Your task to perform on an android device: Open Chrome and go to settings Image 0: 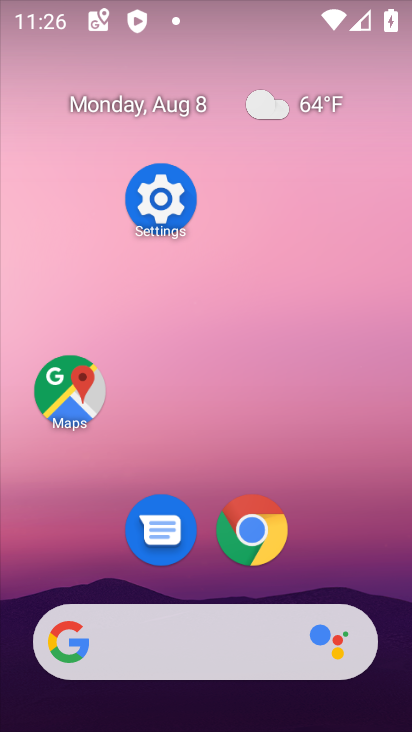
Step 0: drag from (285, 632) to (265, 296)
Your task to perform on an android device: Open Chrome and go to settings Image 1: 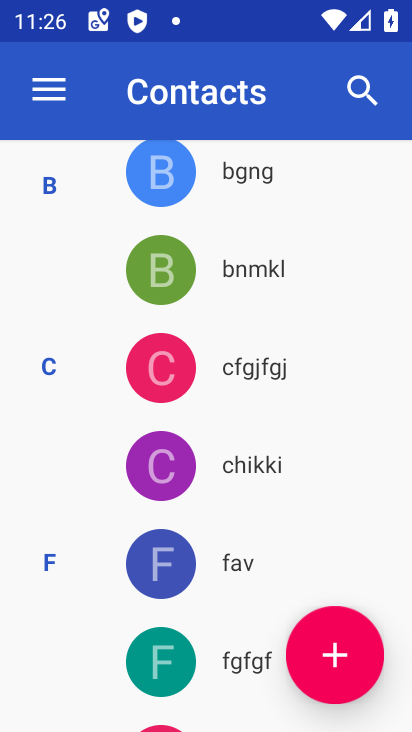
Step 1: press back button
Your task to perform on an android device: Open Chrome and go to settings Image 2: 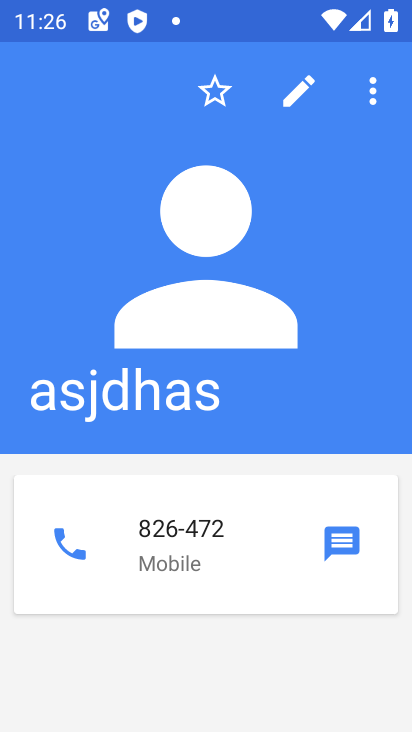
Step 2: press home button
Your task to perform on an android device: Open Chrome and go to settings Image 3: 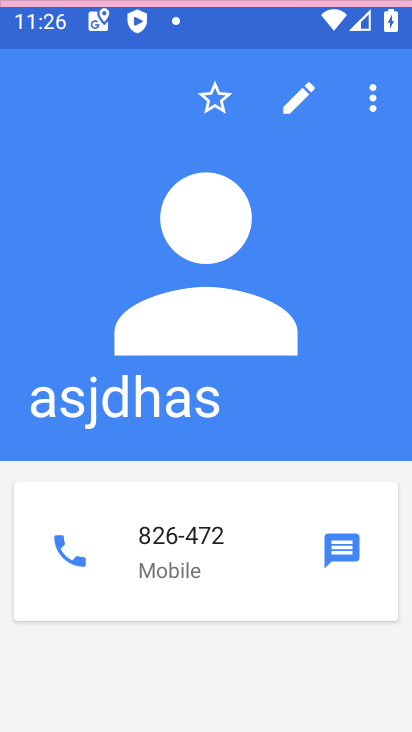
Step 3: press back button
Your task to perform on an android device: Open Chrome and go to settings Image 4: 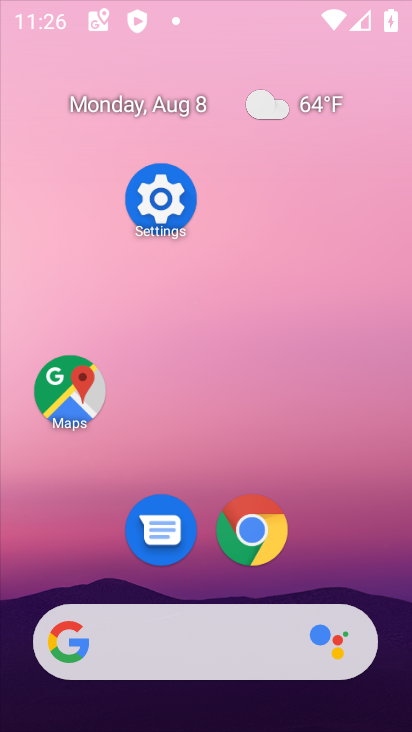
Step 4: press back button
Your task to perform on an android device: Open Chrome and go to settings Image 5: 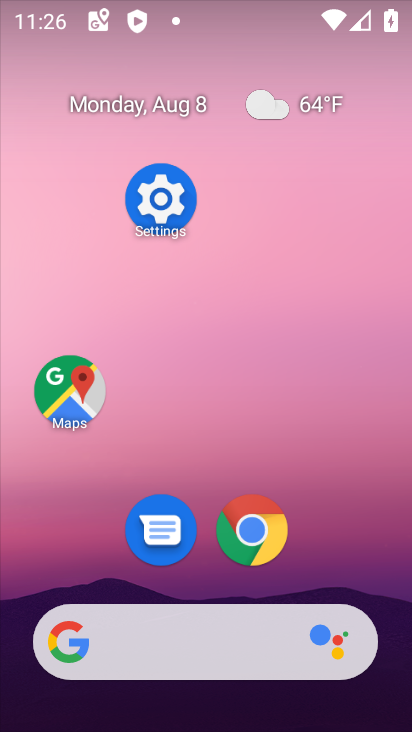
Step 5: press back button
Your task to perform on an android device: Open Chrome and go to settings Image 6: 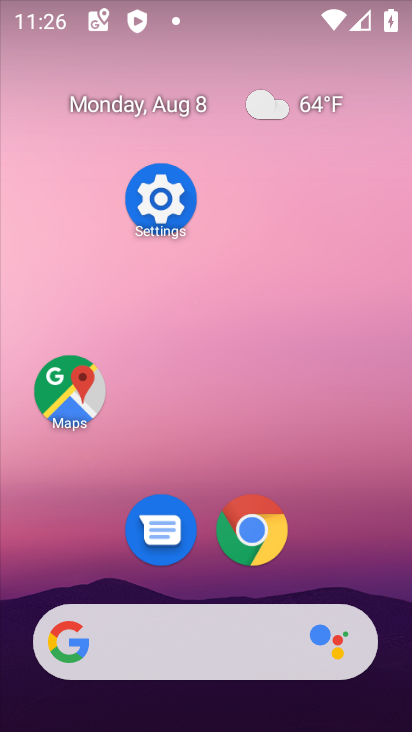
Step 6: drag from (211, 633) to (167, 222)
Your task to perform on an android device: Open Chrome and go to settings Image 7: 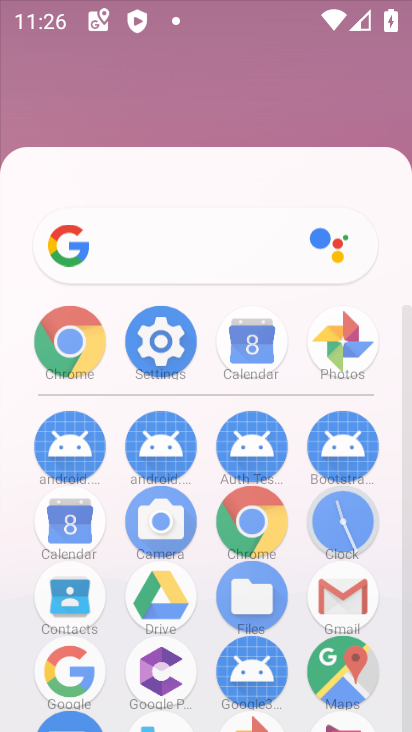
Step 7: drag from (183, 590) to (123, 321)
Your task to perform on an android device: Open Chrome and go to settings Image 8: 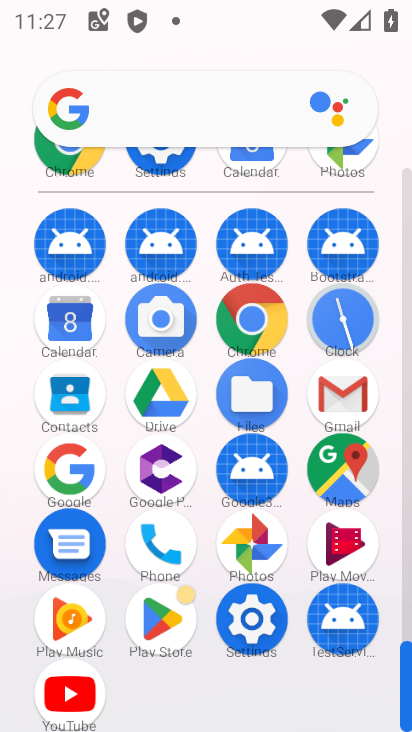
Step 8: click (264, 614)
Your task to perform on an android device: Open Chrome and go to settings Image 9: 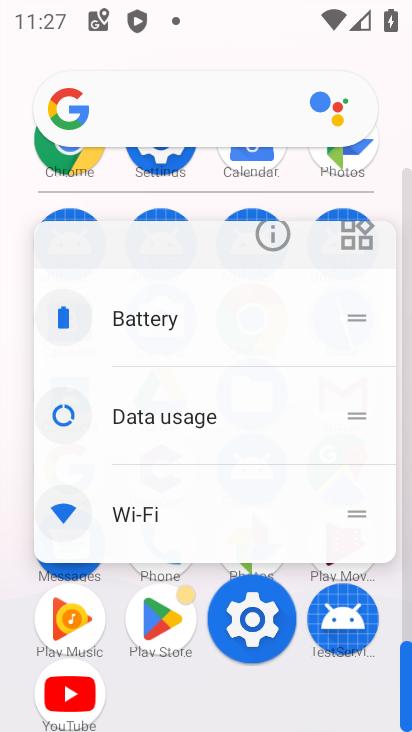
Step 9: click (267, 617)
Your task to perform on an android device: Open Chrome and go to settings Image 10: 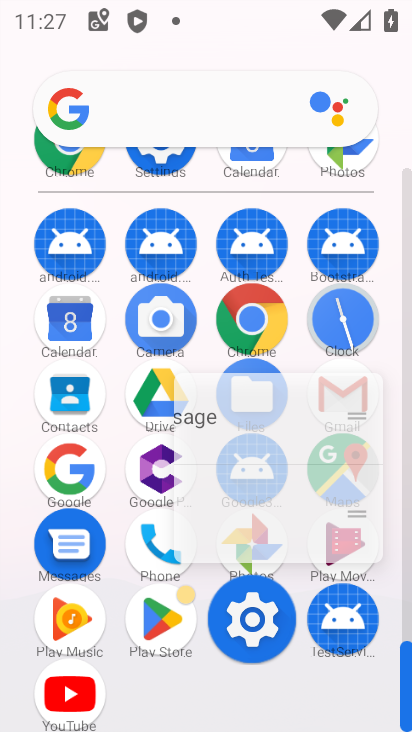
Step 10: click (266, 619)
Your task to perform on an android device: Open Chrome and go to settings Image 11: 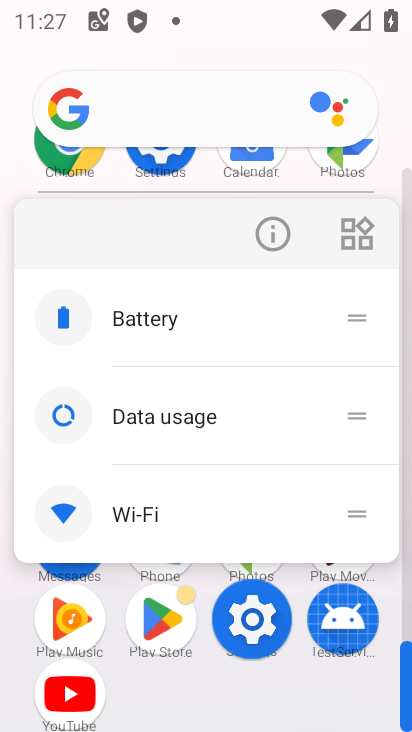
Step 11: click (264, 615)
Your task to perform on an android device: Open Chrome and go to settings Image 12: 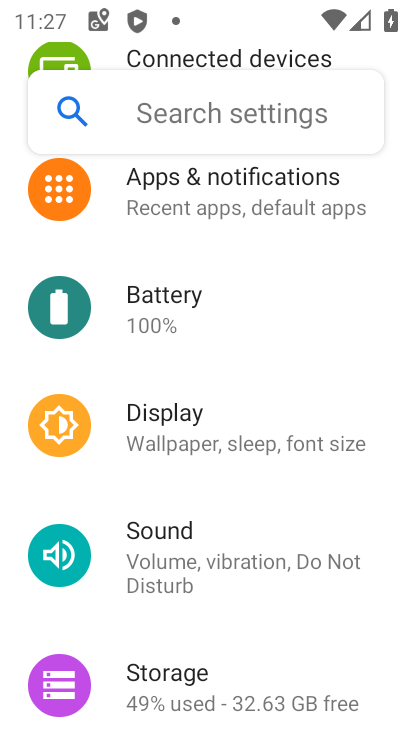
Step 12: press back button
Your task to perform on an android device: Open Chrome and go to settings Image 13: 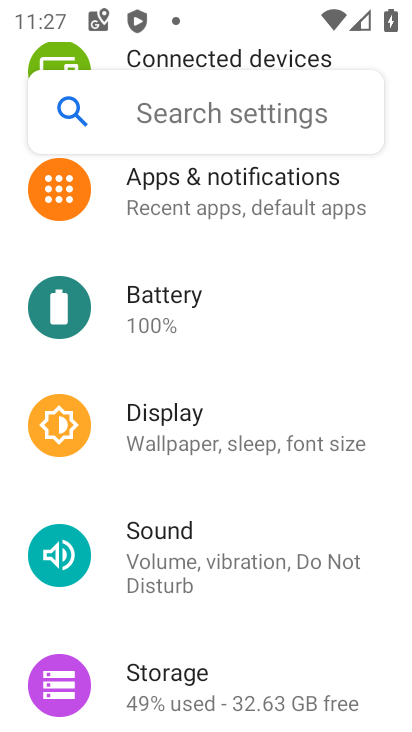
Step 13: press back button
Your task to perform on an android device: Open Chrome and go to settings Image 14: 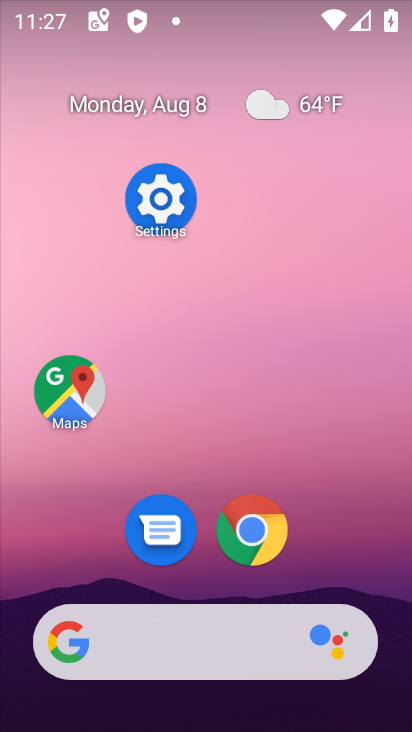
Step 14: drag from (267, 685) to (215, 0)
Your task to perform on an android device: Open Chrome and go to settings Image 15: 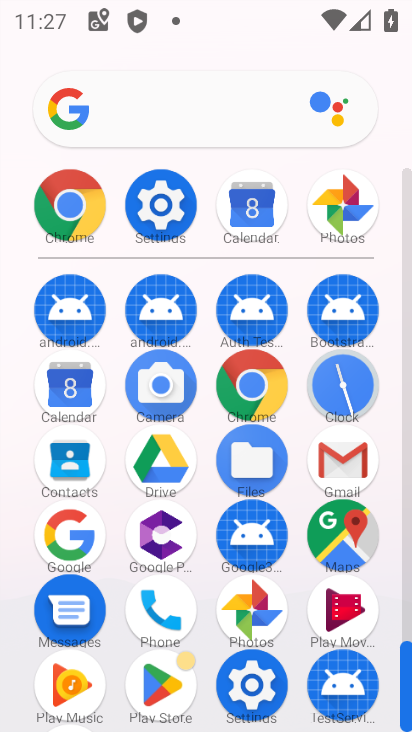
Step 15: drag from (178, 124) to (168, 87)
Your task to perform on an android device: Open Chrome and go to settings Image 16: 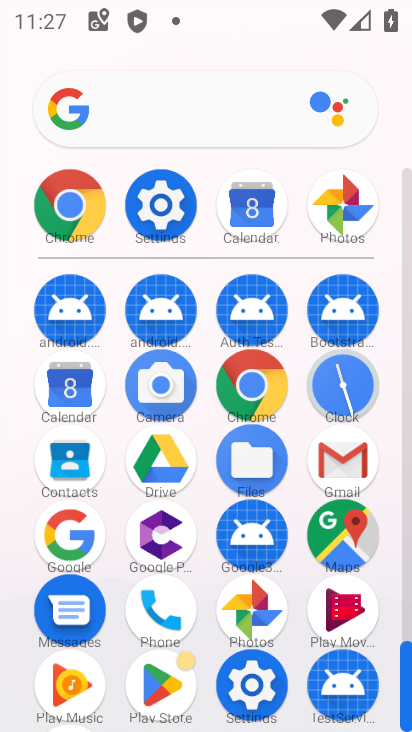
Step 16: click (193, 602)
Your task to perform on an android device: Open Chrome and go to settings Image 17: 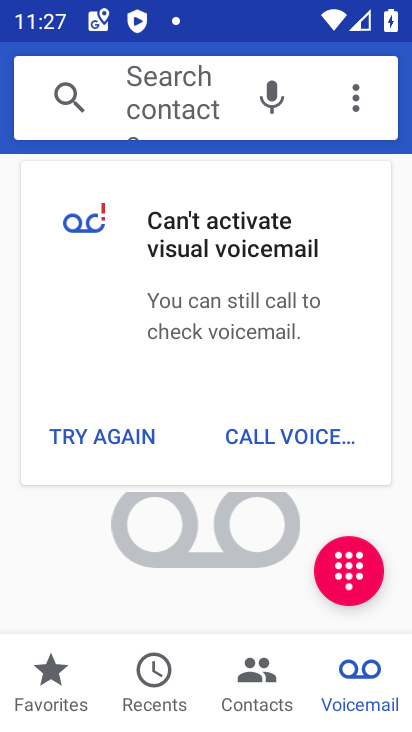
Step 17: press back button
Your task to perform on an android device: Open Chrome and go to settings Image 18: 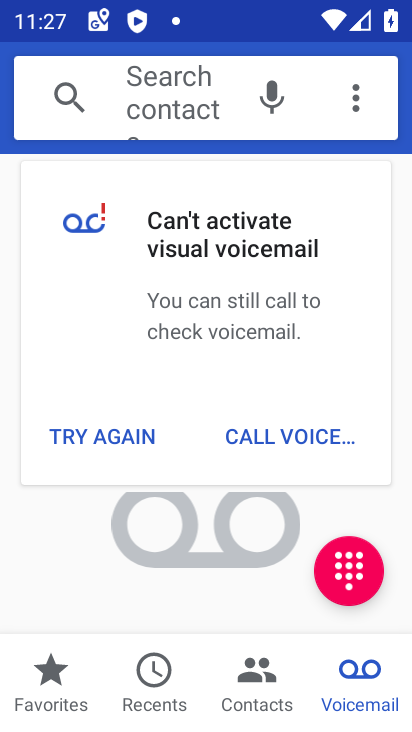
Step 18: press back button
Your task to perform on an android device: Open Chrome and go to settings Image 19: 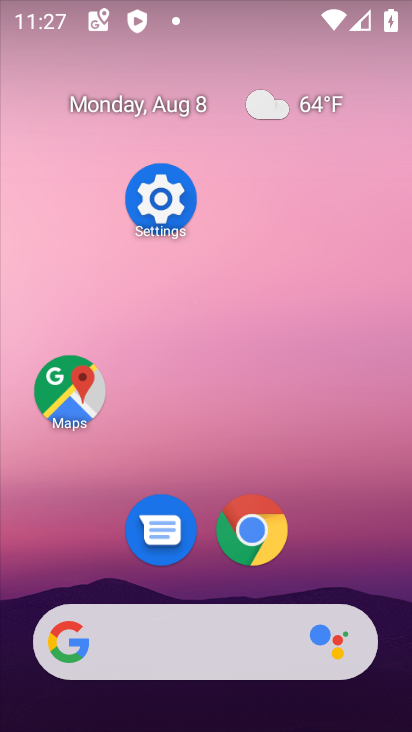
Step 19: click (248, 532)
Your task to perform on an android device: Open Chrome and go to settings Image 20: 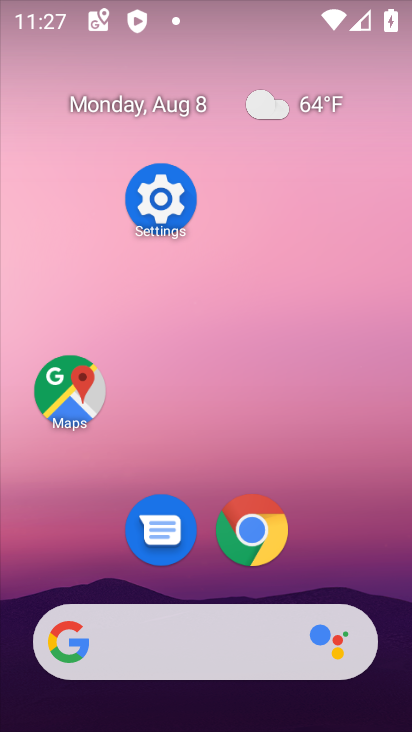
Step 20: click (248, 532)
Your task to perform on an android device: Open Chrome and go to settings Image 21: 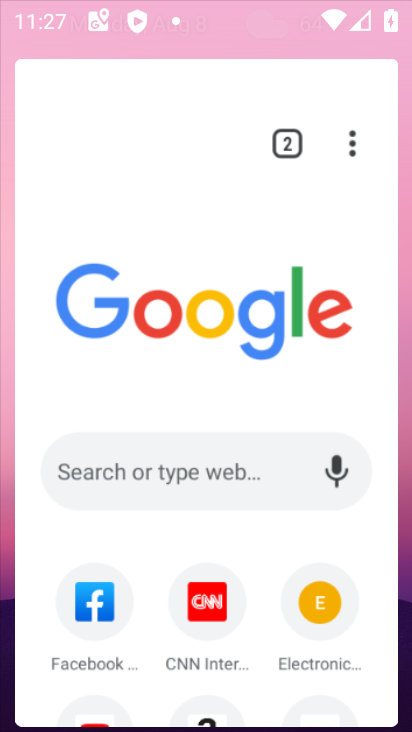
Step 21: click (248, 532)
Your task to perform on an android device: Open Chrome and go to settings Image 22: 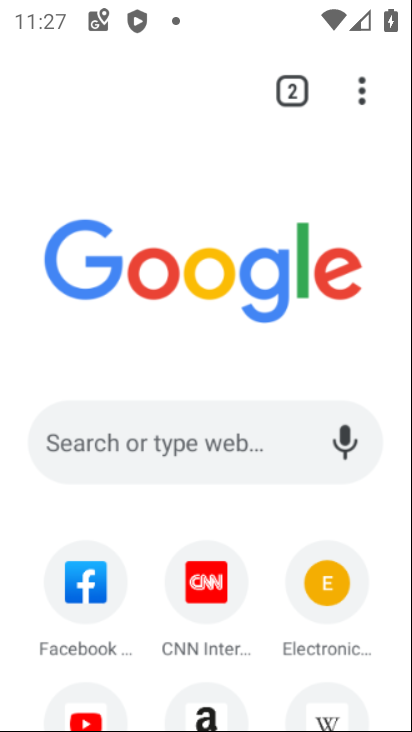
Step 22: click (249, 533)
Your task to perform on an android device: Open Chrome and go to settings Image 23: 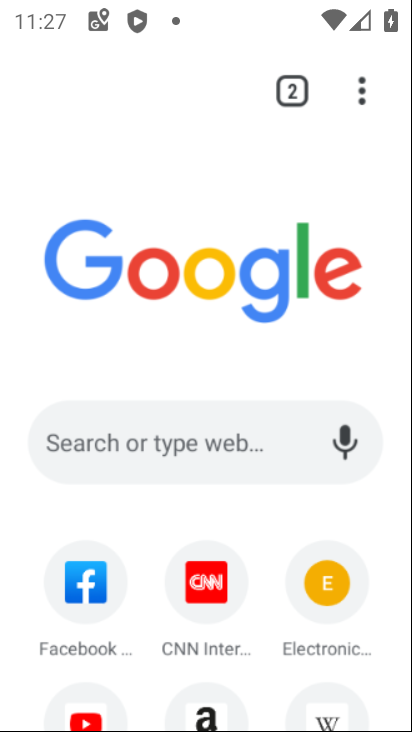
Step 23: click (249, 533)
Your task to perform on an android device: Open Chrome and go to settings Image 24: 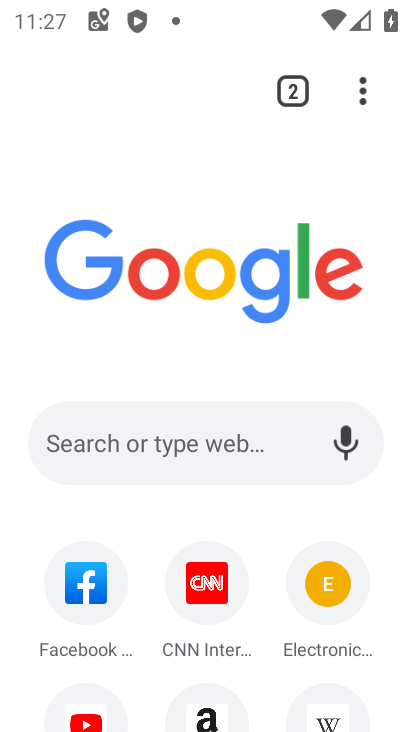
Step 24: drag from (361, 92) to (75, 551)
Your task to perform on an android device: Open Chrome and go to settings Image 25: 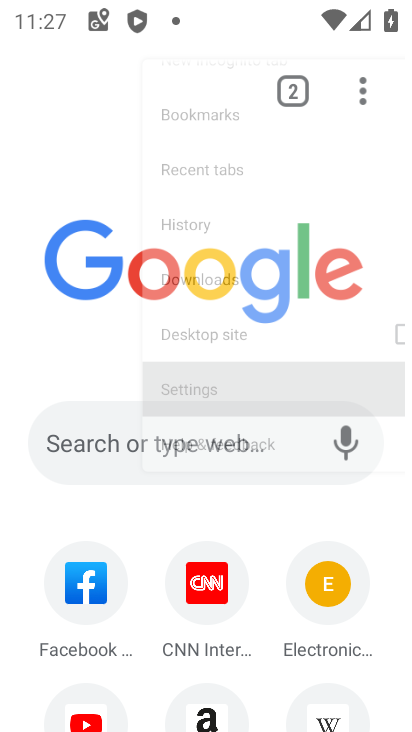
Step 25: click (74, 553)
Your task to perform on an android device: Open Chrome and go to settings Image 26: 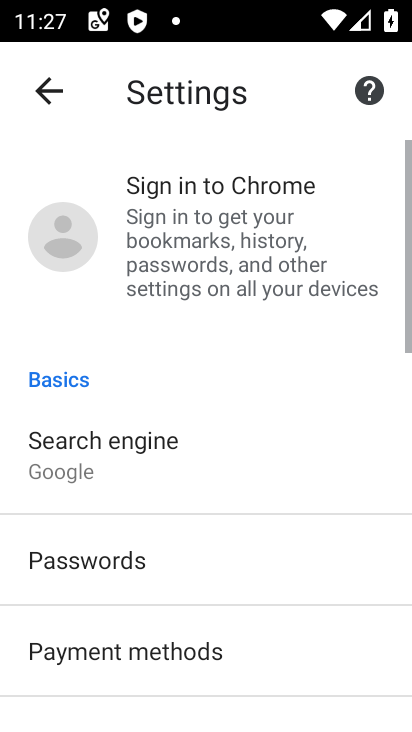
Step 26: task complete